Your task to perform on an android device: Clear all items from cart on ebay. Add "logitech g pro" to the cart on ebay, then select checkout. Image 0: 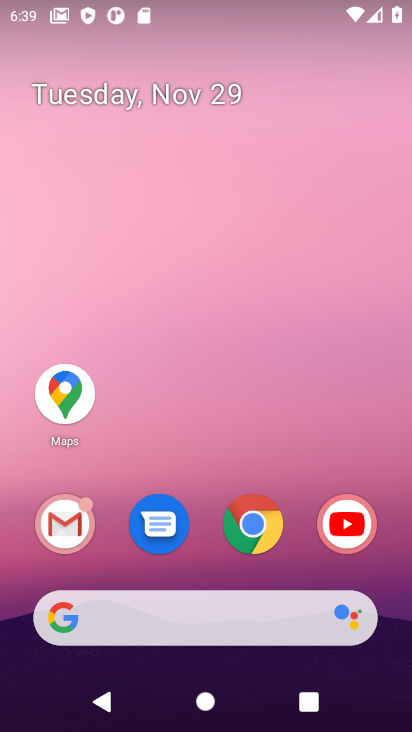
Step 0: click (245, 532)
Your task to perform on an android device: Clear all items from cart on ebay. Add "logitech g pro" to the cart on ebay, then select checkout. Image 1: 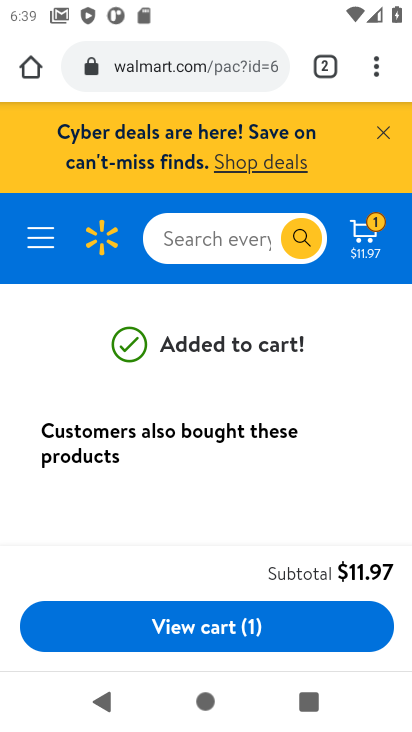
Step 1: click (159, 70)
Your task to perform on an android device: Clear all items from cart on ebay. Add "logitech g pro" to the cart on ebay, then select checkout. Image 2: 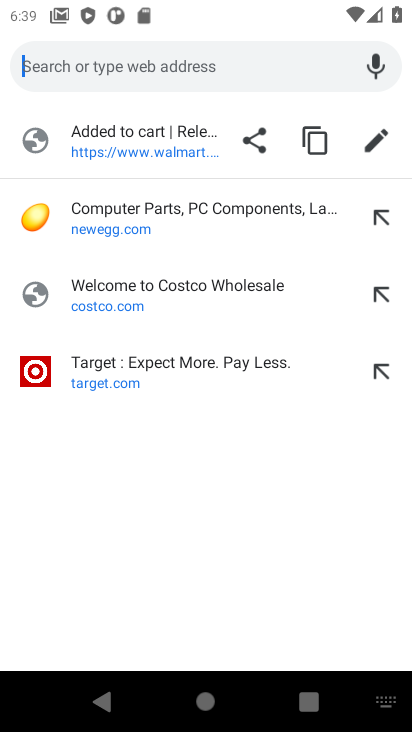
Step 2: type "ebay.com"
Your task to perform on an android device: Clear all items from cart on ebay. Add "logitech g pro" to the cart on ebay, then select checkout. Image 3: 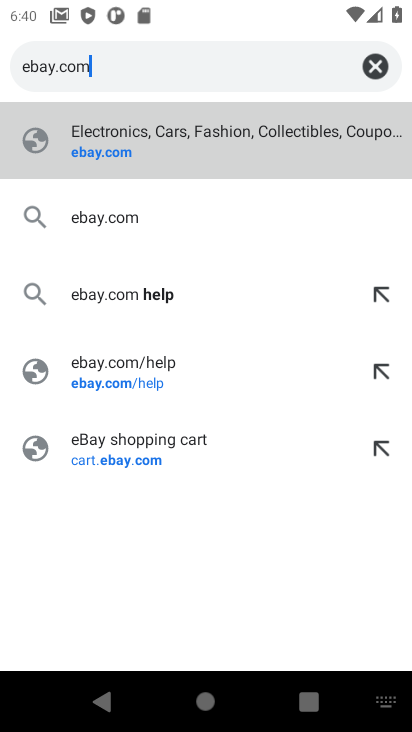
Step 3: click (121, 155)
Your task to perform on an android device: Clear all items from cart on ebay. Add "logitech g pro" to the cart on ebay, then select checkout. Image 4: 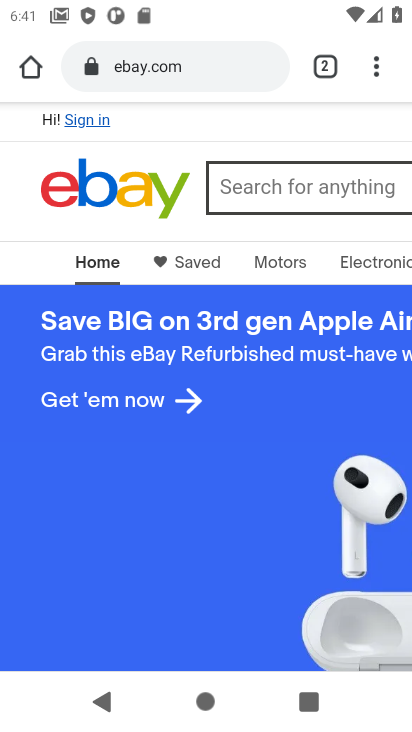
Step 4: drag from (308, 145) to (55, 132)
Your task to perform on an android device: Clear all items from cart on ebay. Add "logitech g pro" to the cart on ebay, then select checkout. Image 5: 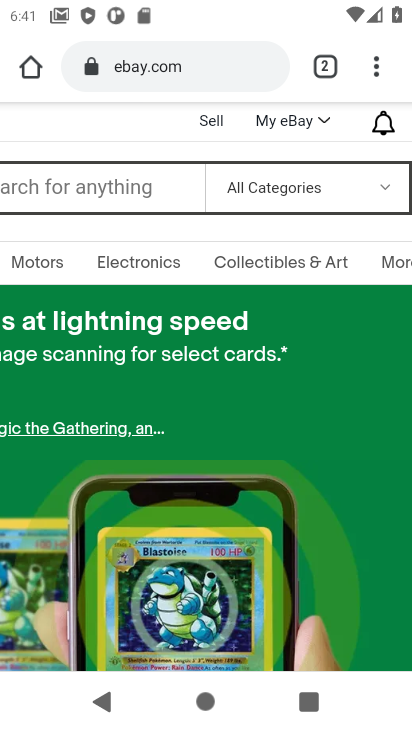
Step 5: drag from (261, 148) to (43, 132)
Your task to perform on an android device: Clear all items from cart on ebay. Add "logitech g pro" to the cart on ebay, then select checkout. Image 6: 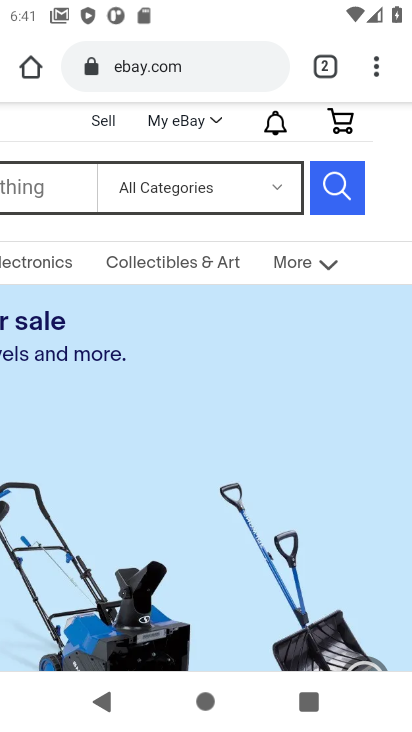
Step 6: click (335, 127)
Your task to perform on an android device: Clear all items from cart on ebay. Add "logitech g pro" to the cart on ebay, then select checkout. Image 7: 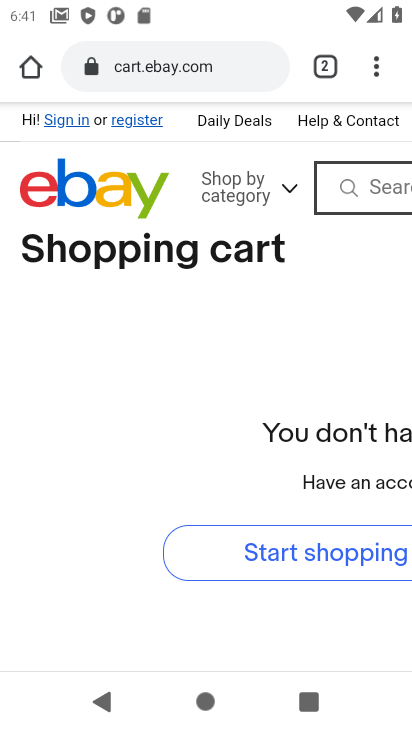
Step 7: drag from (281, 154) to (41, 152)
Your task to perform on an android device: Clear all items from cart on ebay. Add "logitech g pro" to the cart on ebay, then select checkout. Image 8: 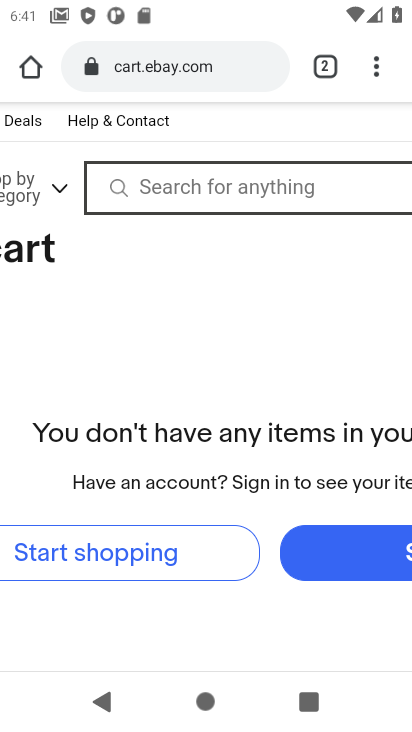
Step 8: drag from (360, 141) to (8, 146)
Your task to perform on an android device: Clear all items from cart on ebay. Add "logitech g pro" to the cart on ebay, then select checkout. Image 9: 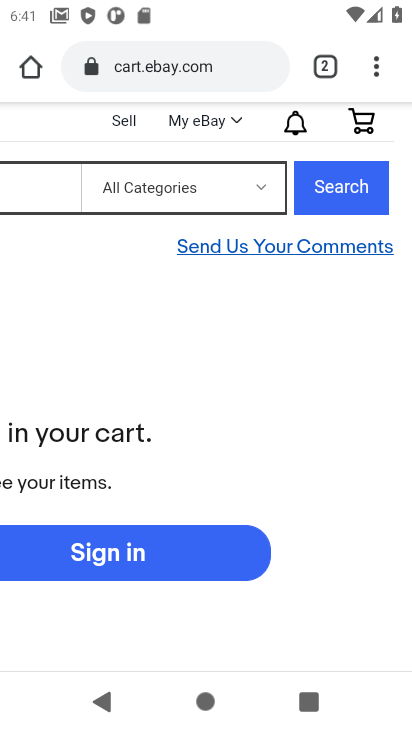
Step 9: click (360, 117)
Your task to perform on an android device: Clear all items from cart on ebay. Add "logitech g pro" to the cart on ebay, then select checkout. Image 10: 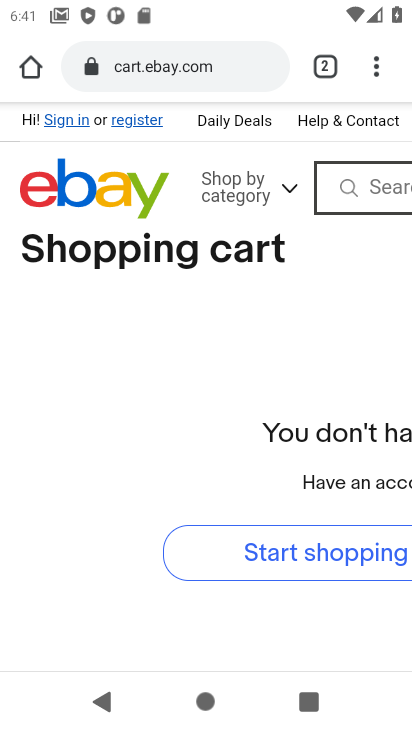
Step 10: click (348, 171)
Your task to perform on an android device: Clear all items from cart on ebay. Add "logitech g pro" to the cart on ebay, then select checkout. Image 11: 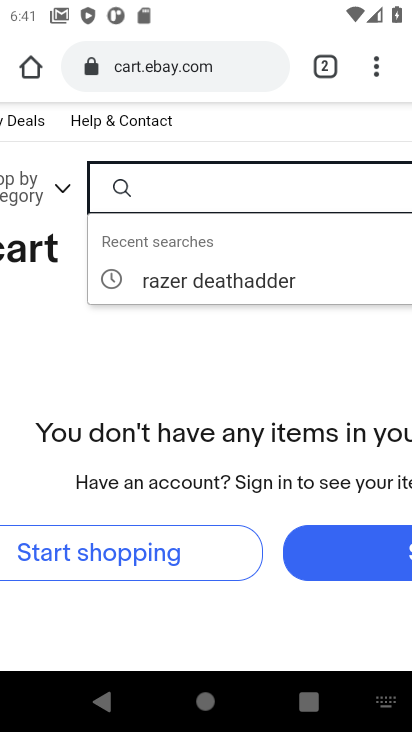
Step 11: type "logitech g pro"
Your task to perform on an android device: Clear all items from cart on ebay. Add "logitech g pro" to the cart on ebay, then select checkout. Image 12: 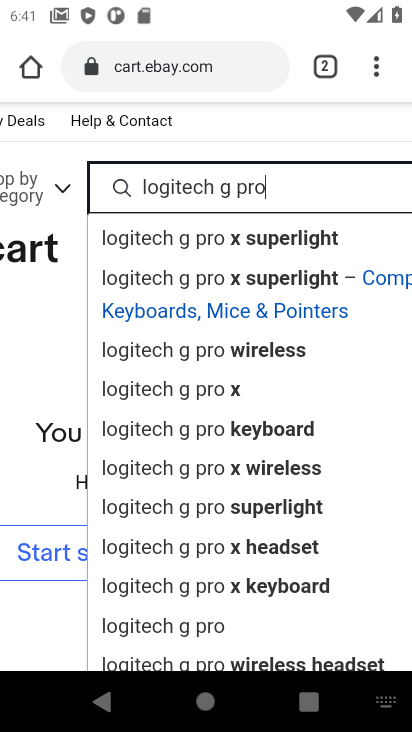
Step 12: click (190, 634)
Your task to perform on an android device: Clear all items from cart on ebay. Add "logitech g pro" to the cart on ebay, then select checkout. Image 13: 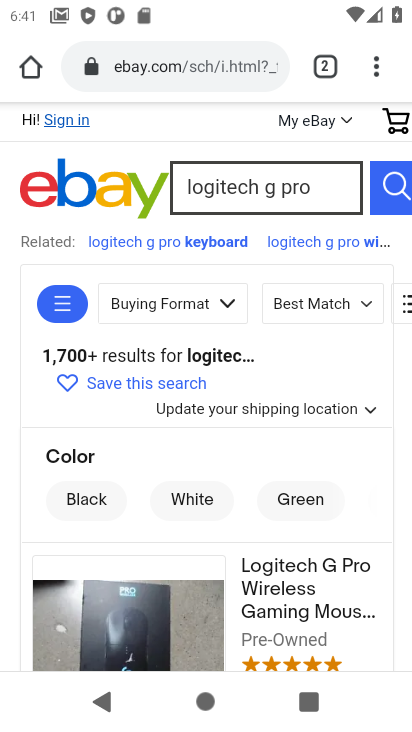
Step 13: drag from (217, 518) to (212, 312)
Your task to perform on an android device: Clear all items from cart on ebay. Add "logitech g pro" to the cart on ebay, then select checkout. Image 14: 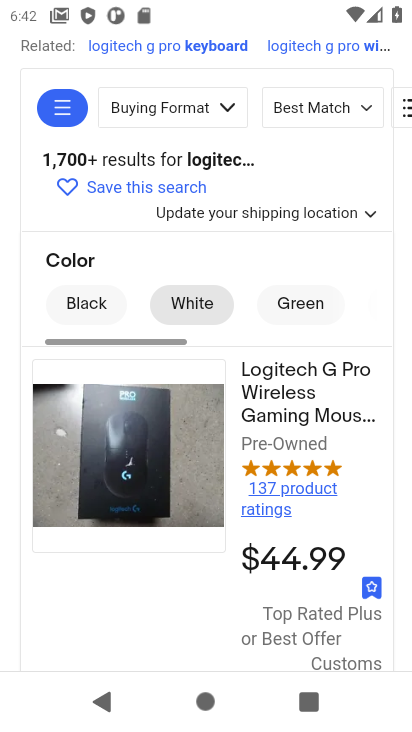
Step 14: drag from (186, 530) to (191, 339)
Your task to perform on an android device: Clear all items from cart on ebay. Add "logitech g pro" to the cart on ebay, then select checkout. Image 15: 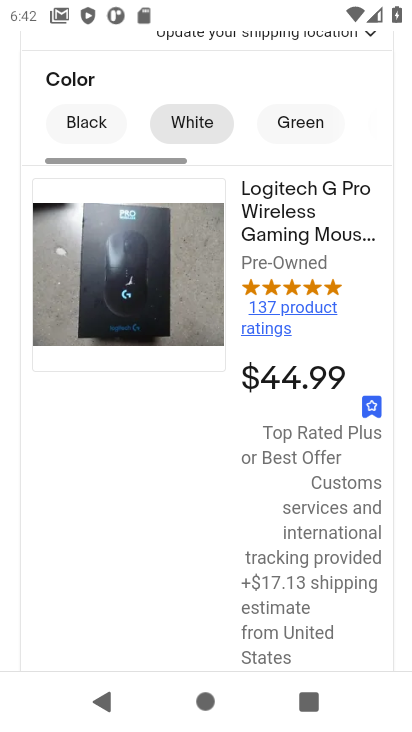
Step 15: drag from (197, 448) to (195, 266)
Your task to perform on an android device: Clear all items from cart on ebay. Add "logitech g pro" to the cart on ebay, then select checkout. Image 16: 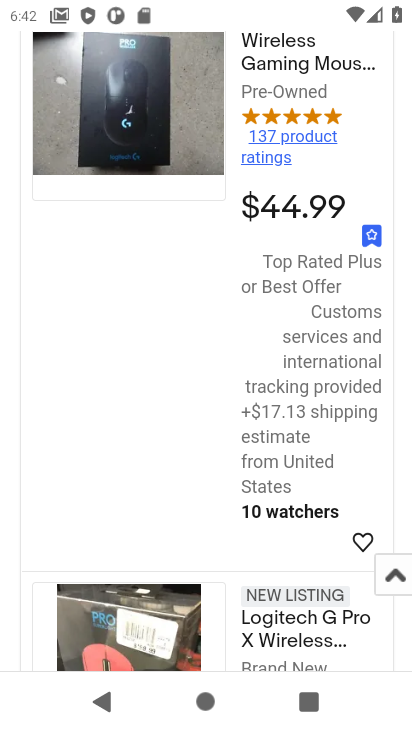
Step 16: click (162, 191)
Your task to perform on an android device: Clear all items from cart on ebay. Add "logitech g pro" to the cart on ebay, then select checkout. Image 17: 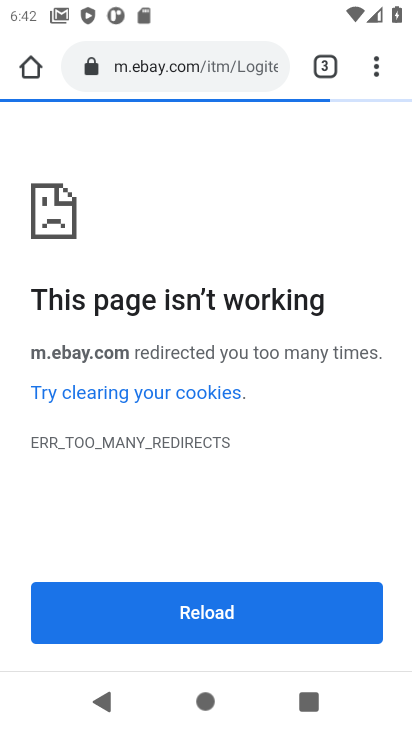
Step 17: task complete